Your task to perform on an android device: Go to location settings Image 0: 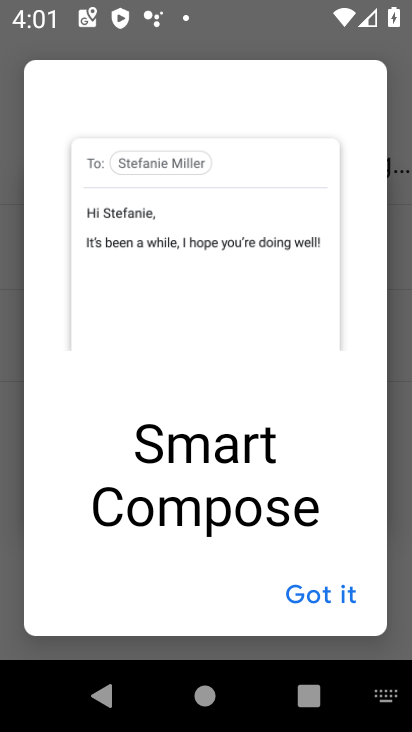
Step 0: press home button
Your task to perform on an android device: Go to location settings Image 1: 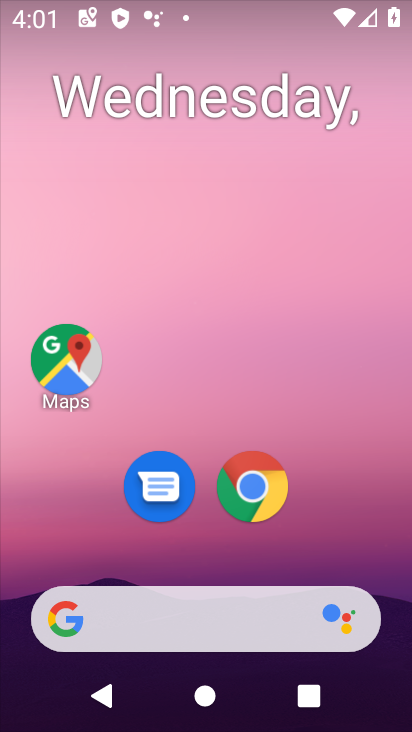
Step 1: drag from (249, 570) to (261, 216)
Your task to perform on an android device: Go to location settings Image 2: 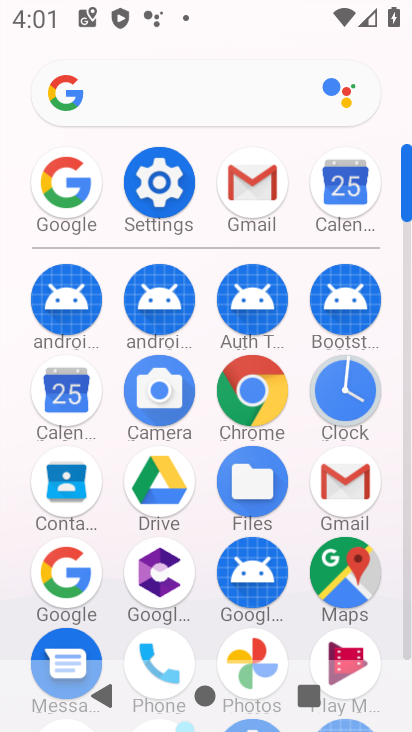
Step 2: click (204, 195)
Your task to perform on an android device: Go to location settings Image 3: 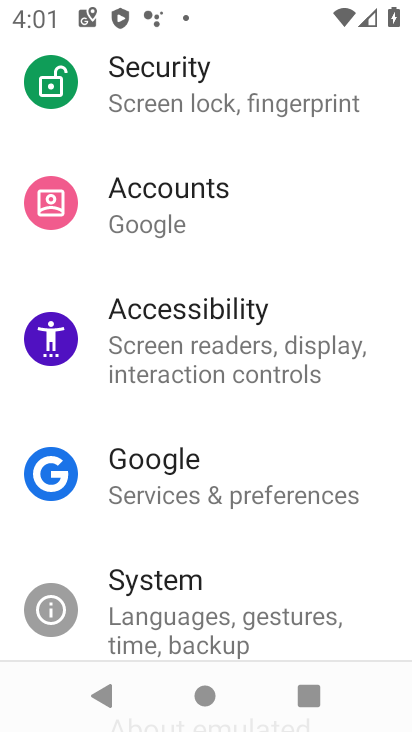
Step 3: drag from (230, 629) to (303, 113)
Your task to perform on an android device: Go to location settings Image 4: 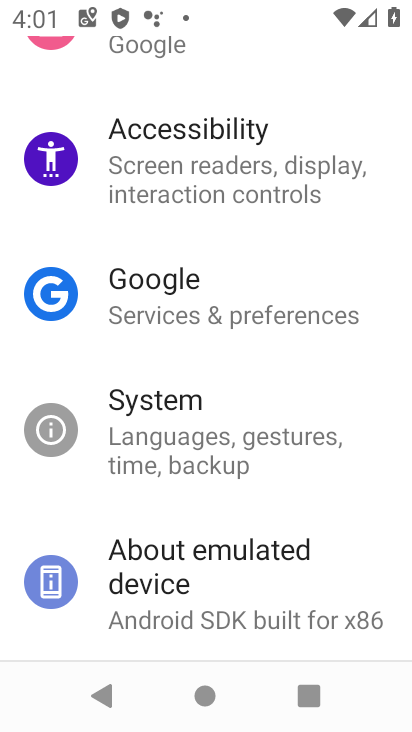
Step 4: drag from (299, 123) to (289, 570)
Your task to perform on an android device: Go to location settings Image 5: 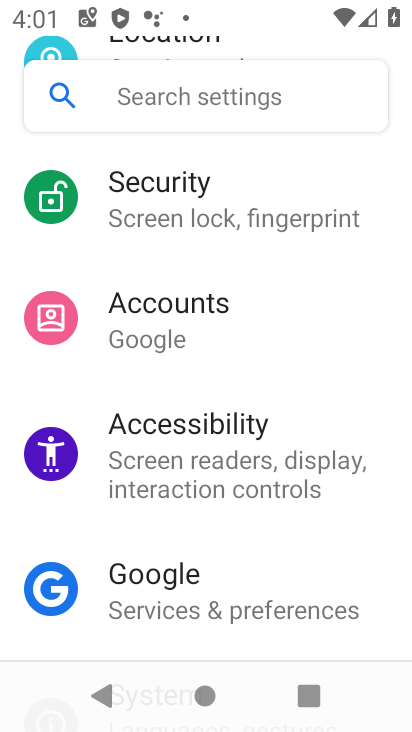
Step 5: drag from (348, 136) to (367, 477)
Your task to perform on an android device: Go to location settings Image 6: 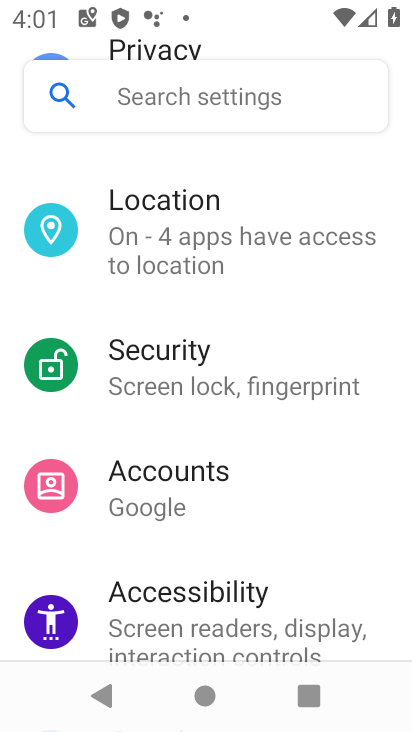
Step 6: click (244, 219)
Your task to perform on an android device: Go to location settings Image 7: 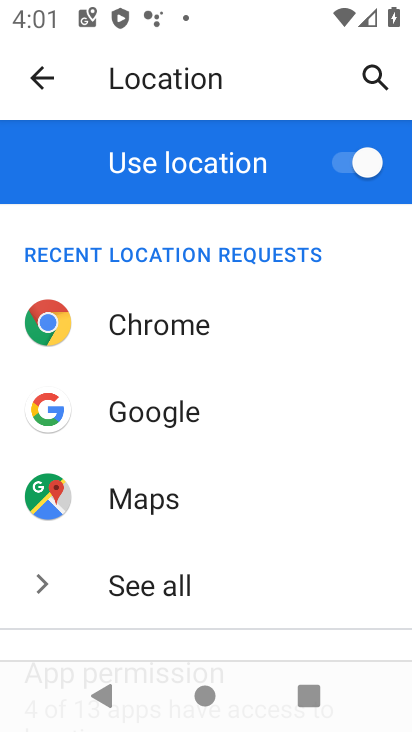
Step 7: drag from (209, 505) to (324, 94)
Your task to perform on an android device: Go to location settings Image 8: 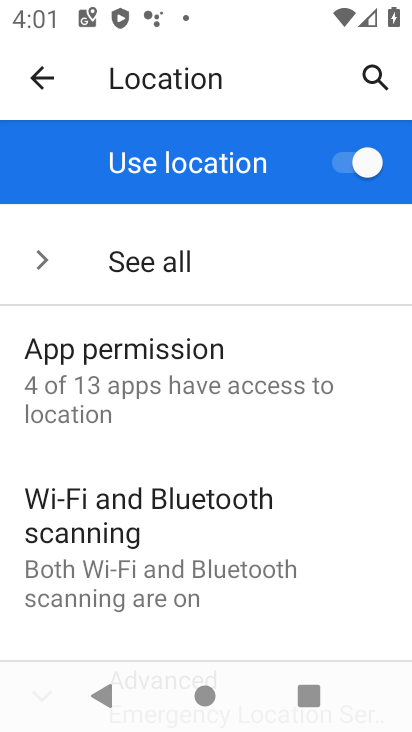
Step 8: drag from (275, 501) to (379, 108)
Your task to perform on an android device: Go to location settings Image 9: 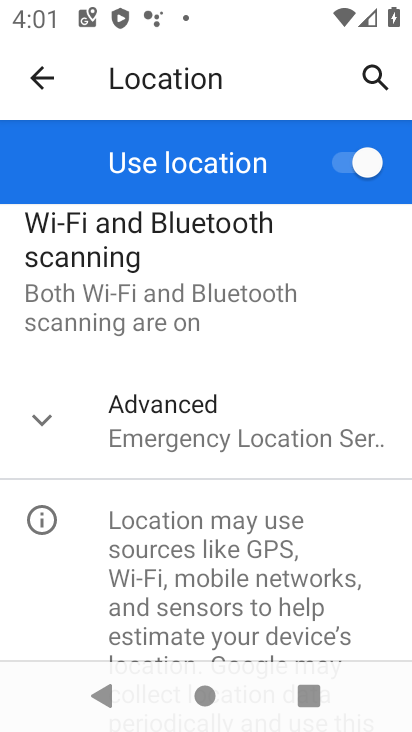
Step 9: click (219, 395)
Your task to perform on an android device: Go to location settings Image 10: 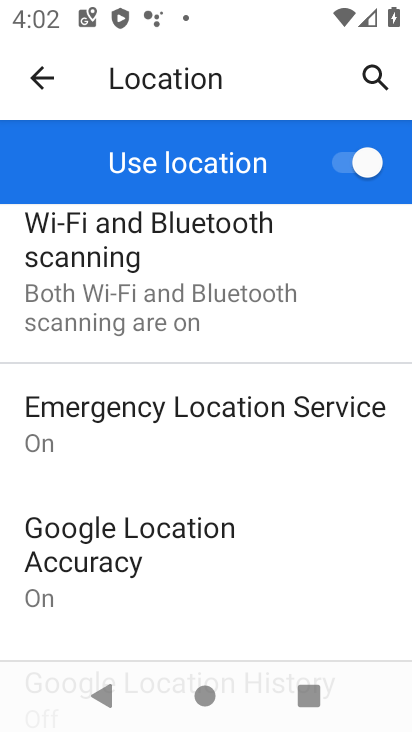
Step 10: task complete